Your task to perform on an android device: turn notification dots off Image 0: 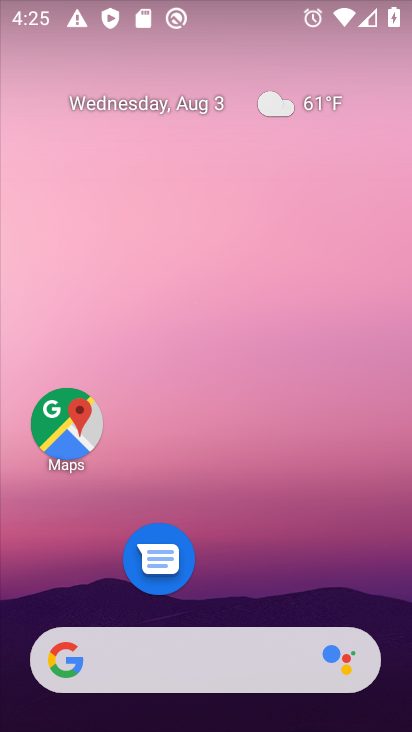
Step 0: drag from (213, 593) to (216, 45)
Your task to perform on an android device: turn notification dots off Image 1: 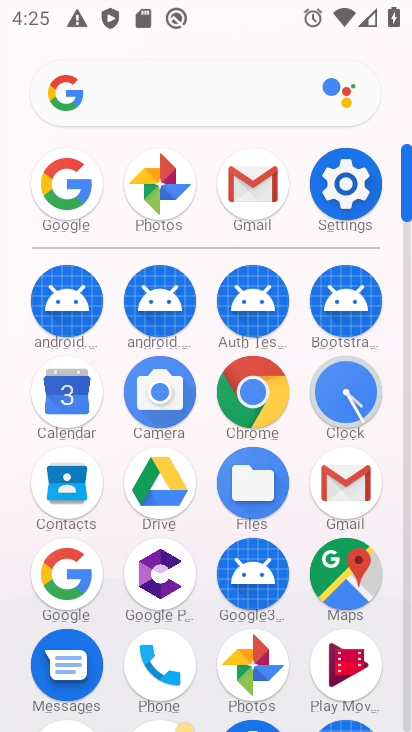
Step 1: click (349, 178)
Your task to perform on an android device: turn notification dots off Image 2: 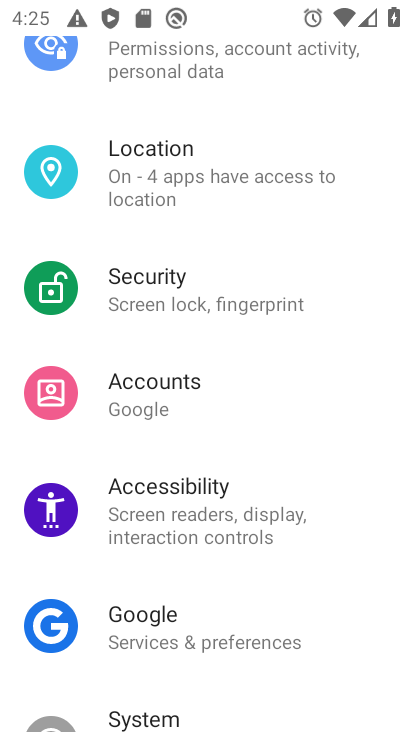
Step 2: drag from (272, 119) to (256, 486)
Your task to perform on an android device: turn notification dots off Image 3: 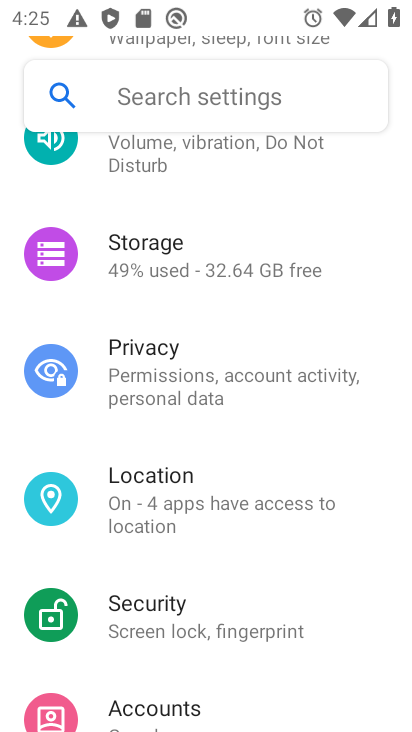
Step 3: drag from (168, 212) to (198, 554)
Your task to perform on an android device: turn notification dots off Image 4: 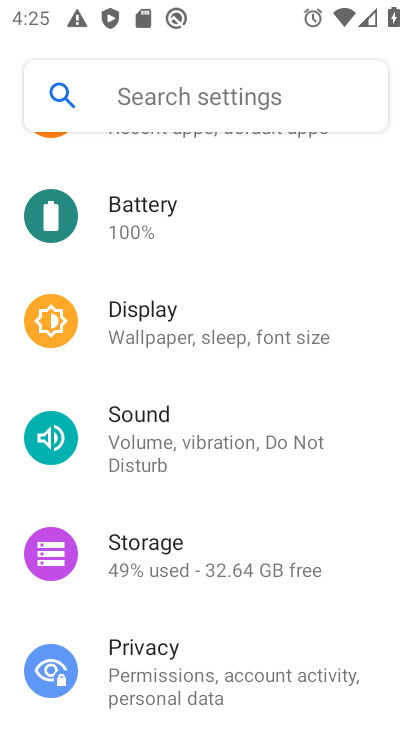
Step 4: drag from (176, 176) to (235, 582)
Your task to perform on an android device: turn notification dots off Image 5: 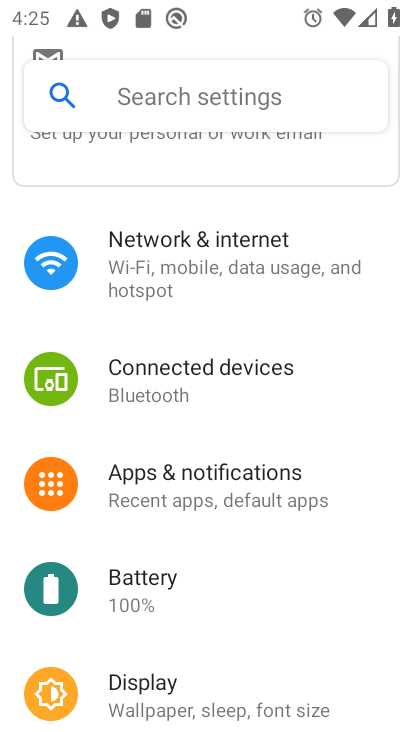
Step 5: click (184, 493)
Your task to perform on an android device: turn notification dots off Image 6: 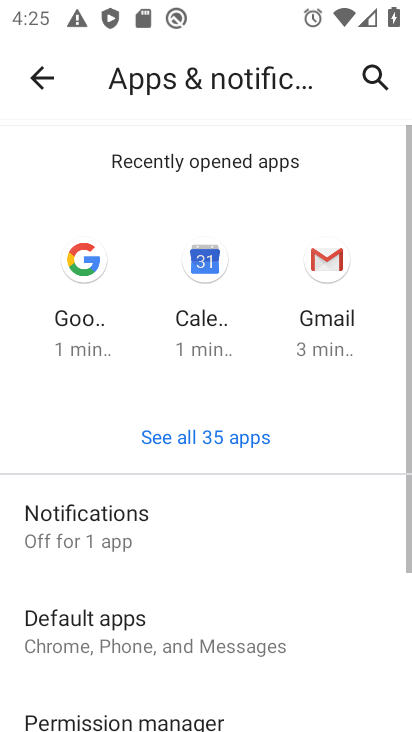
Step 6: drag from (259, 713) to (234, 264)
Your task to perform on an android device: turn notification dots off Image 7: 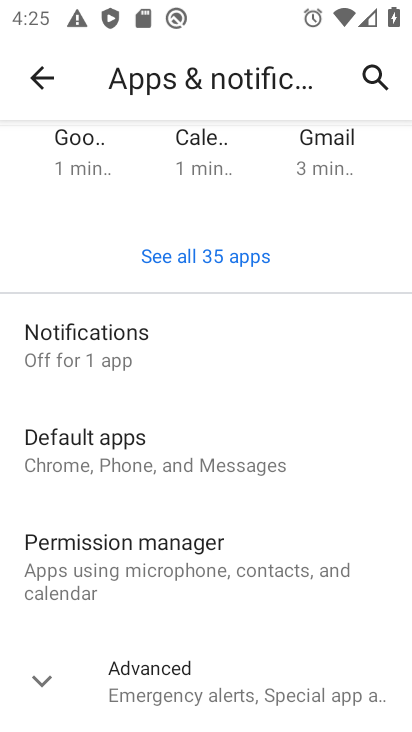
Step 7: click (78, 349)
Your task to perform on an android device: turn notification dots off Image 8: 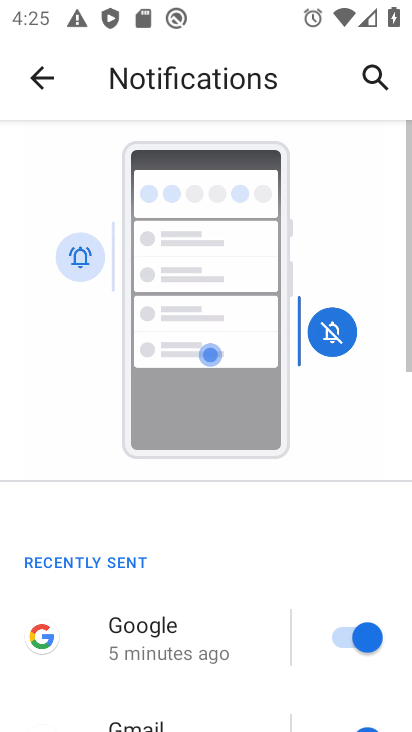
Step 8: drag from (190, 697) to (211, 263)
Your task to perform on an android device: turn notification dots off Image 9: 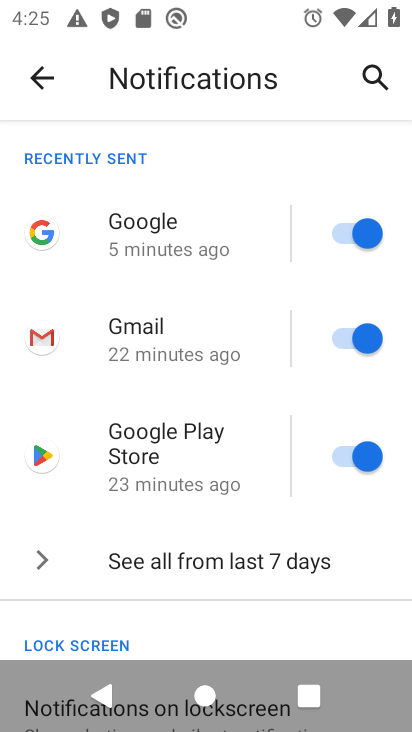
Step 9: drag from (193, 612) to (203, 131)
Your task to perform on an android device: turn notification dots off Image 10: 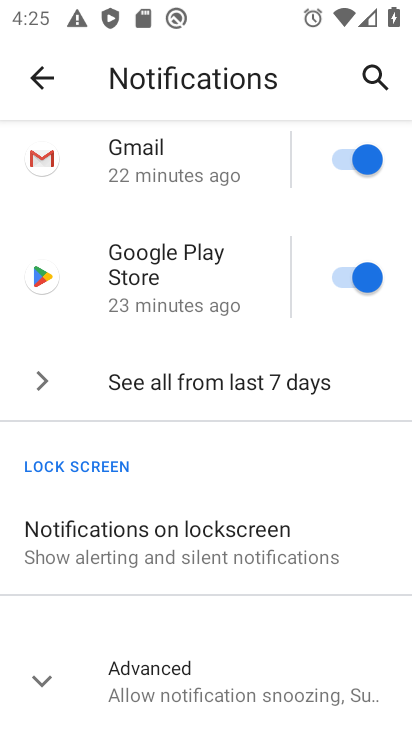
Step 10: click (175, 684)
Your task to perform on an android device: turn notification dots off Image 11: 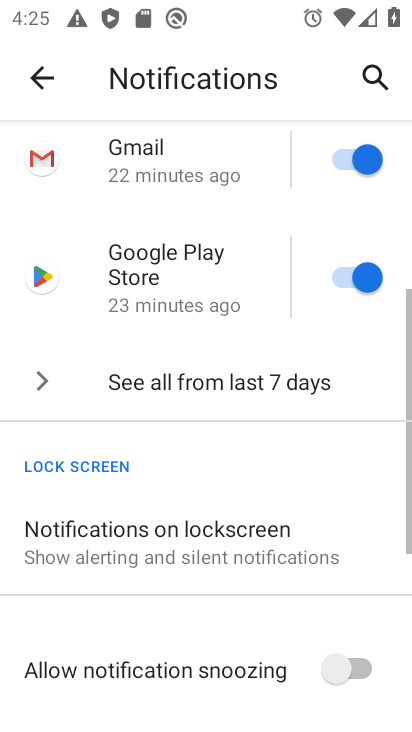
Step 11: drag from (256, 663) to (269, 268)
Your task to perform on an android device: turn notification dots off Image 12: 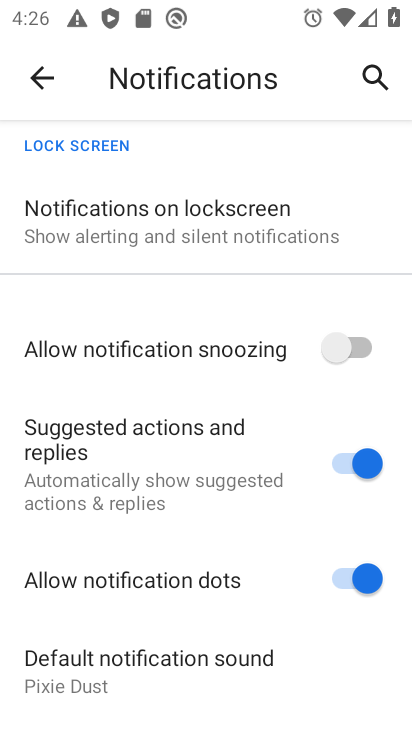
Step 12: click (341, 573)
Your task to perform on an android device: turn notification dots off Image 13: 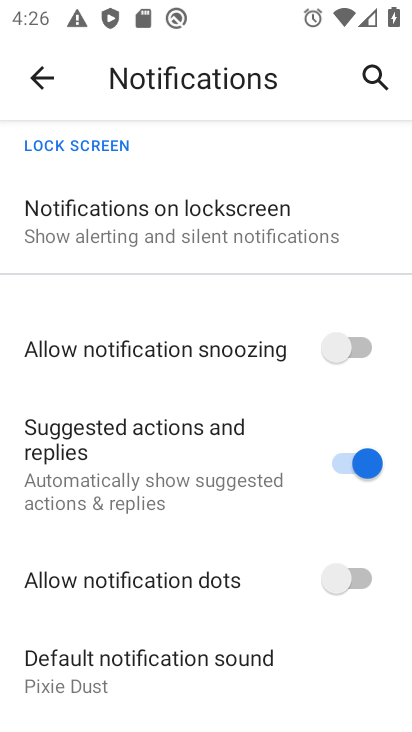
Step 13: task complete